Your task to perform on an android device: turn on location history Image 0: 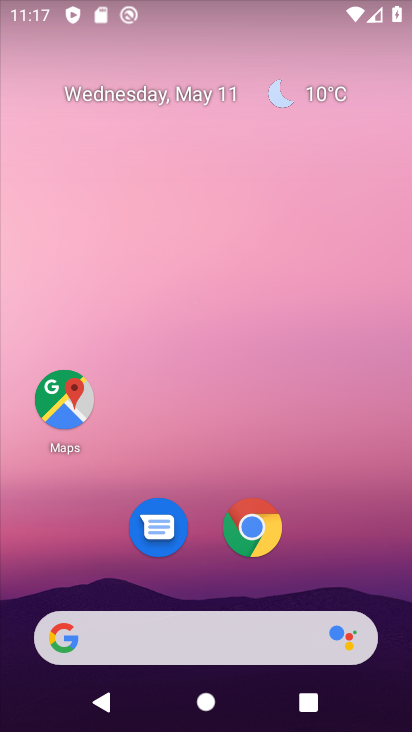
Step 0: drag from (203, 585) to (170, 7)
Your task to perform on an android device: turn on location history Image 1: 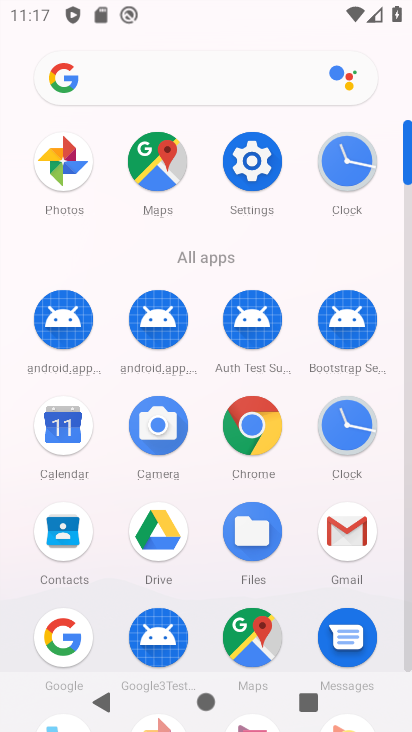
Step 1: click (258, 190)
Your task to perform on an android device: turn on location history Image 2: 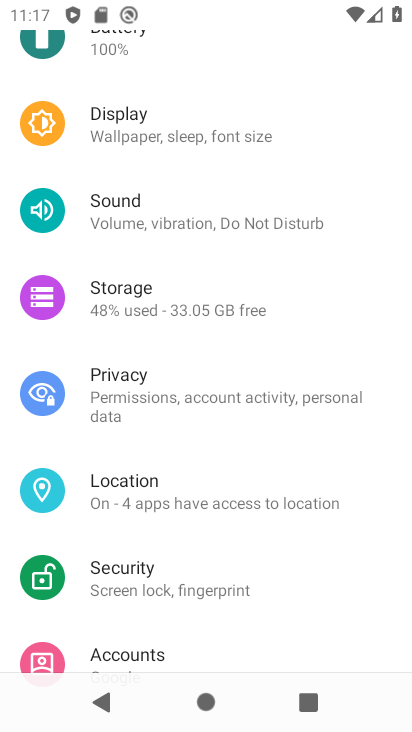
Step 2: click (157, 475)
Your task to perform on an android device: turn on location history Image 3: 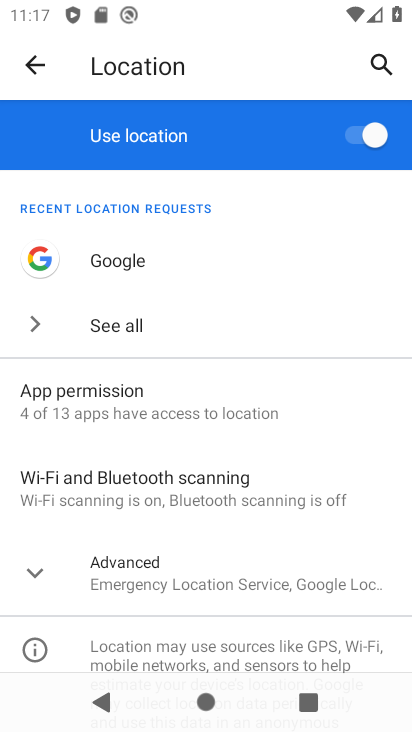
Step 3: drag from (158, 591) to (189, 296)
Your task to perform on an android device: turn on location history Image 4: 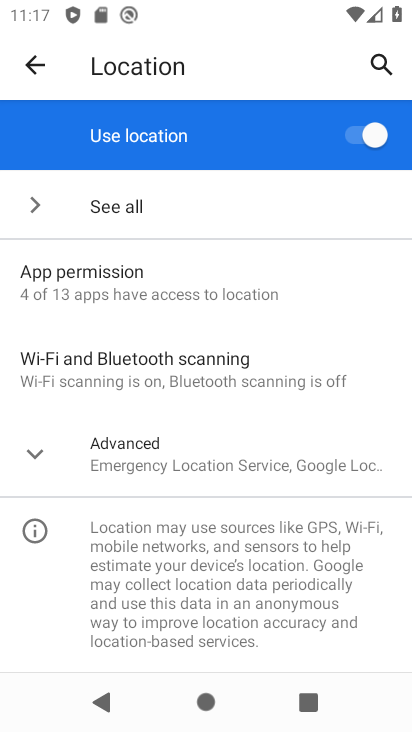
Step 4: drag from (115, 617) to (142, 530)
Your task to perform on an android device: turn on location history Image 5: 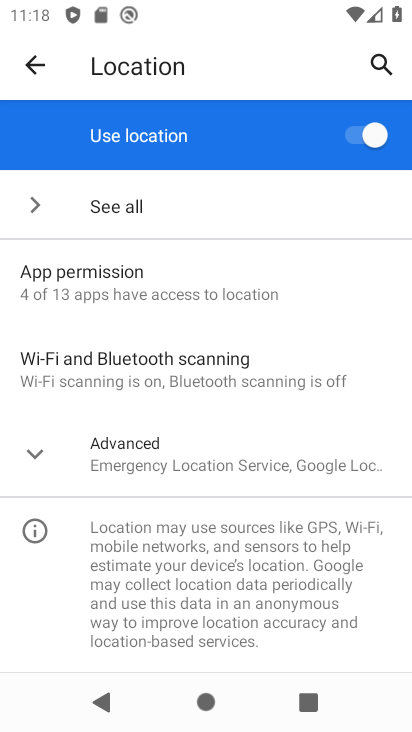
Step 5: click (132, 448)
Your task to perform on an android device: turn on location history Image 6: 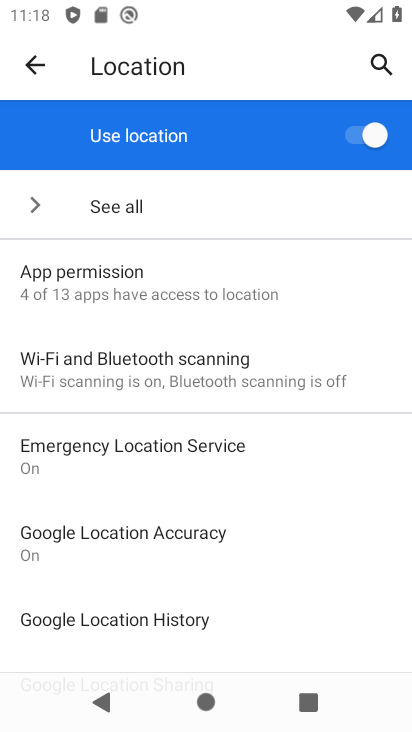
Step 6: drag from (109, 573) to (168, 246)
Your task to perform on an android device: turn on location history Image 7: 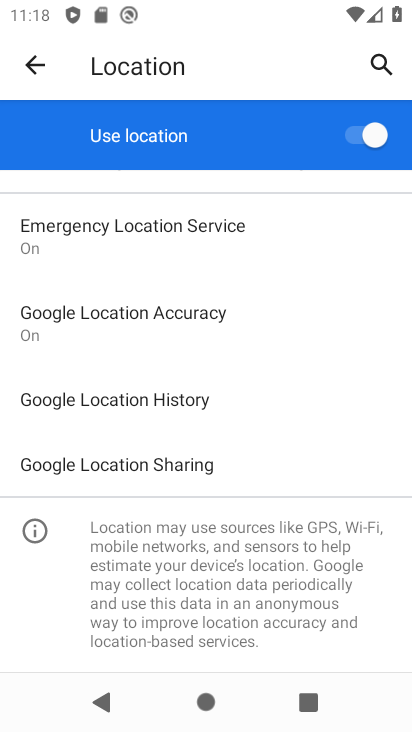
Step 7: click (178, 413)
Your task to perform on an android device: turn on location history Image 8: 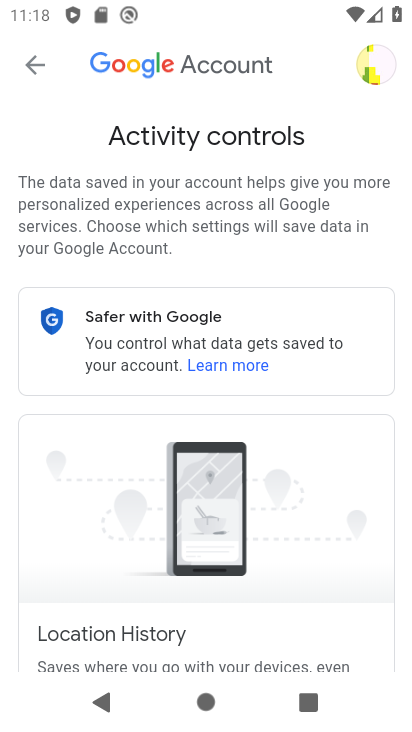
Step 8: drag from (168, 542) to (217, 282)
Your task to perform on an android device: turn on location history Image 9: 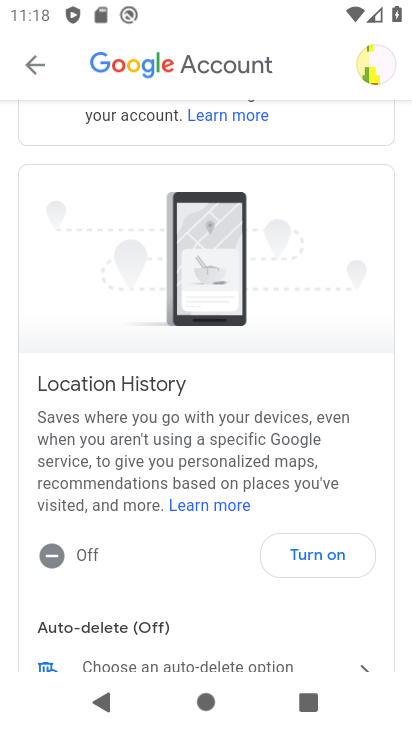
Step 9: click (290, 556)
Your task to perform on an android device: turn on location history Image 10: 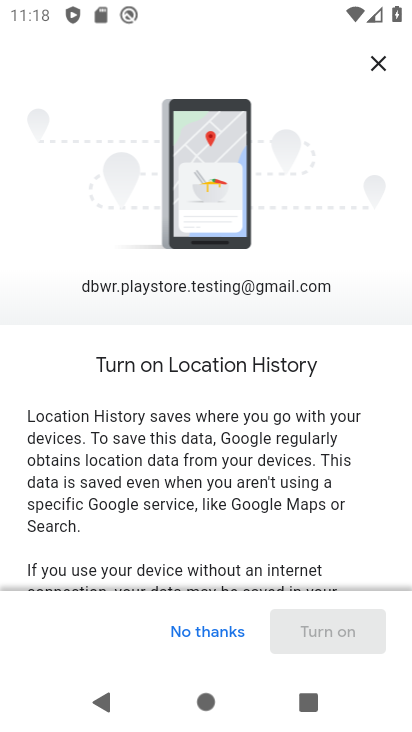
Step 10: drag from (207, 533) to (242, 212)
Your task to perform on an android device: turn on location history Image 11: 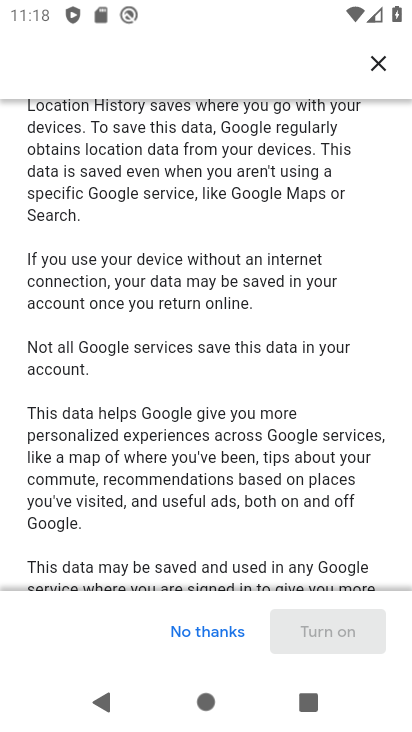
Step 11: drag from (242, 505) to (334, 0)
Your task to perform on an android device: turn on location history Image 12: 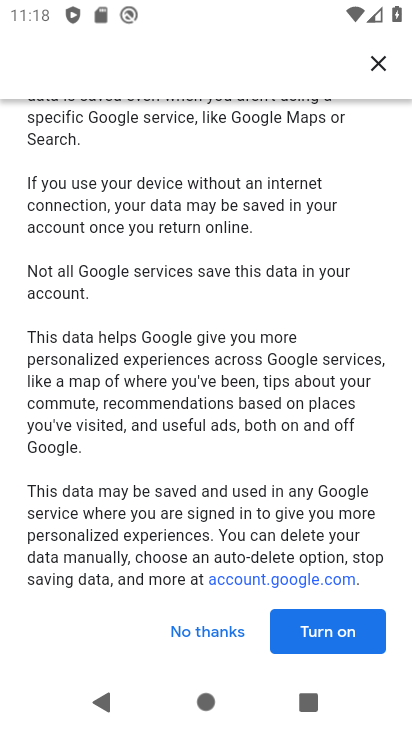
Step 12: click (327, 638)
Your task to perform on an android device: turn on location history Image 13: 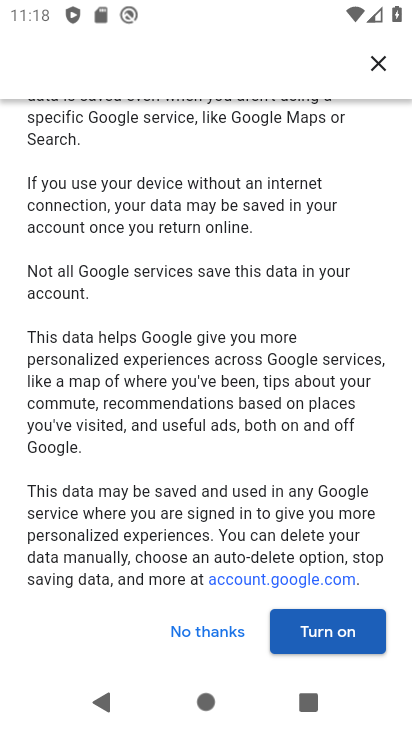
Step 13: click (321, 644)
Your task to perform on an android device: turn on location history Image 14: 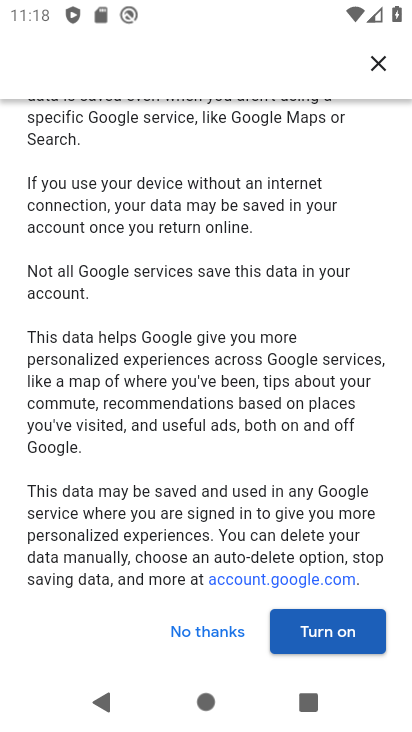
Step 14: click (322, 644)
Your task to perform on an android device: turn on location history Image 15: 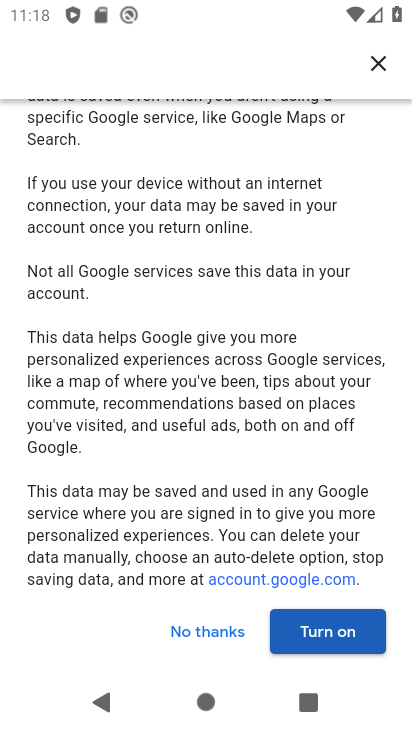
Step 15: click (333, 629)
Your task to perform on an android device: turn on location history Image 16: 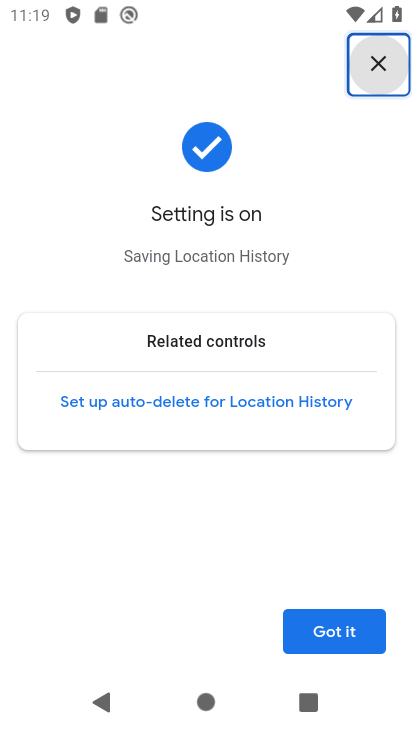
Step 16: click (334, 630)
Your task to perform on an android device: turn on location history Image 17: 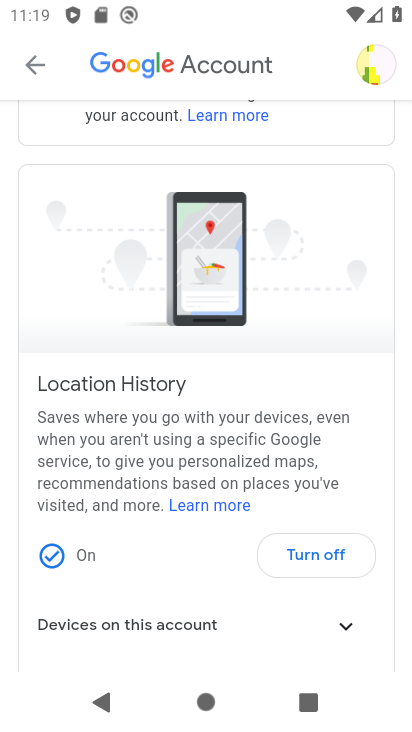
Step 17: task complete